Your task to perform on an android device: change your default location settings in chrome Image 0: 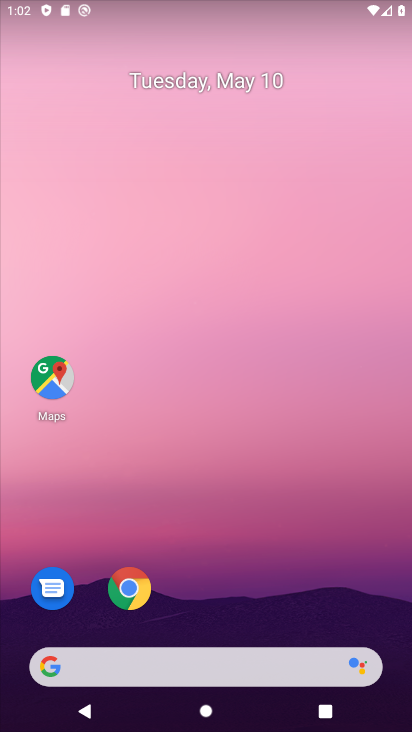
Step 0: drag from (231, 681) to (364, 134)
Your task to perform on an android device: change your default location settings in chrome Image 1: 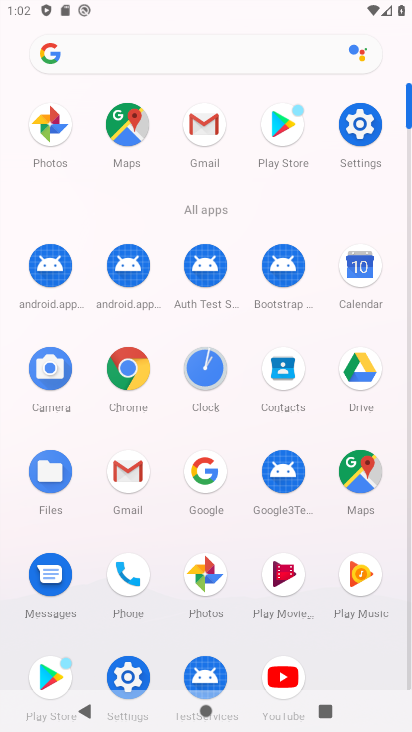
Step 1: click (136, 357)
Your task to perform on an android device: change your default location settings in chrome Image 2: 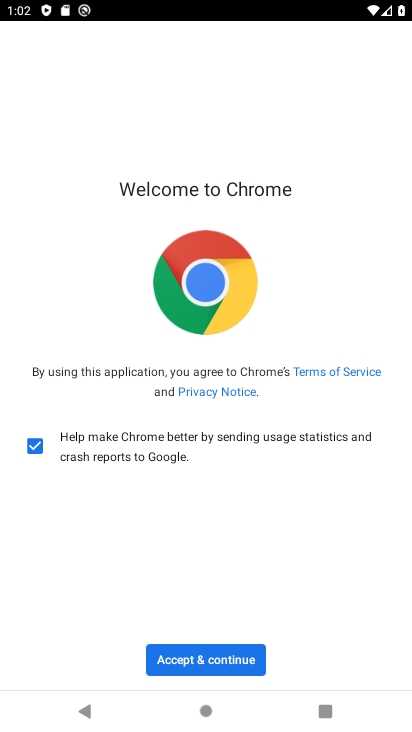
Step 2: click (223, 659)
Your task to perform on an android device: change your default location settings in chrome Image 3: 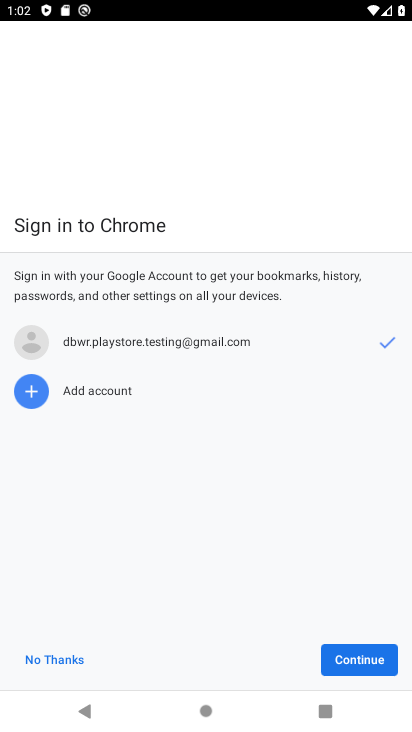
Step 3: click (338, 657)
Your task to perform on an android device: change your default location settings in chrome Image 4: 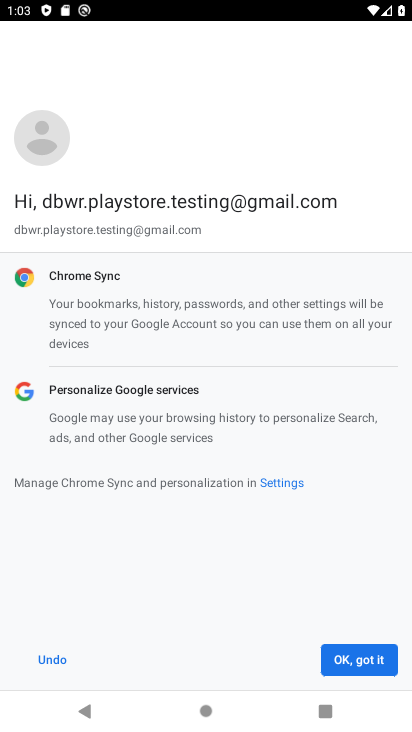
Step 4: click (346, 650)
Your task to perform on an android device: change your default location settings in chrome Image 5: 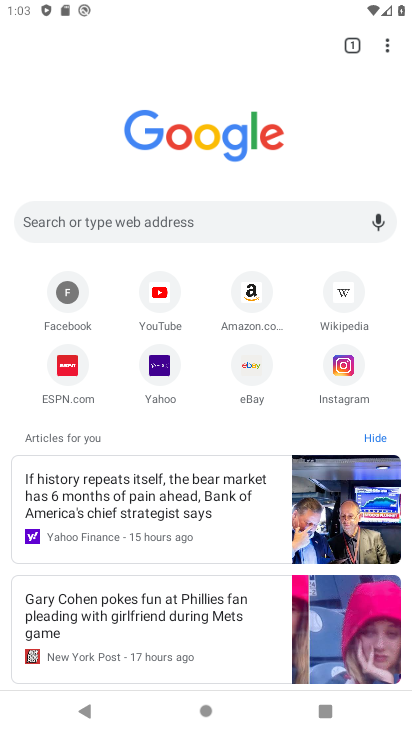
Step 5: click (379, 46)
Your task to perform on an android device: change your default location settings in chrome Image 6: 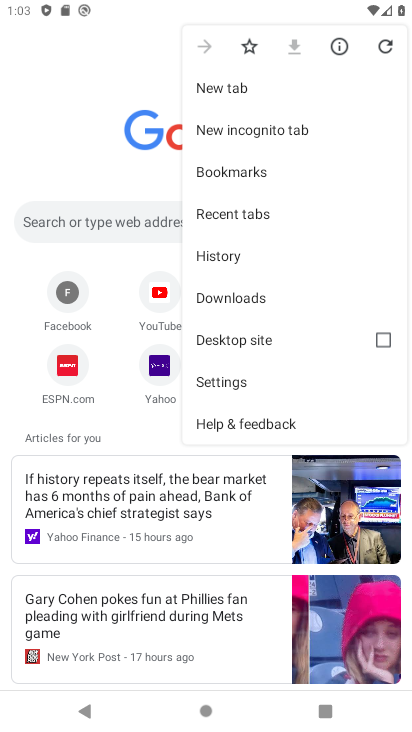
Step 6: click (228, 380)
Your task to perform on an android device: change your default location settings in chrome Image 7: 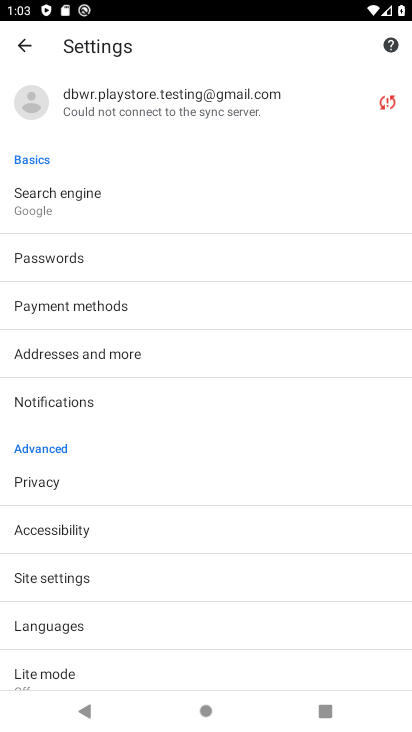
Step 7: drag from (56, 627) to (146, 502)
Your task to perform on an android device: change your default location settings in chrome Image 8: 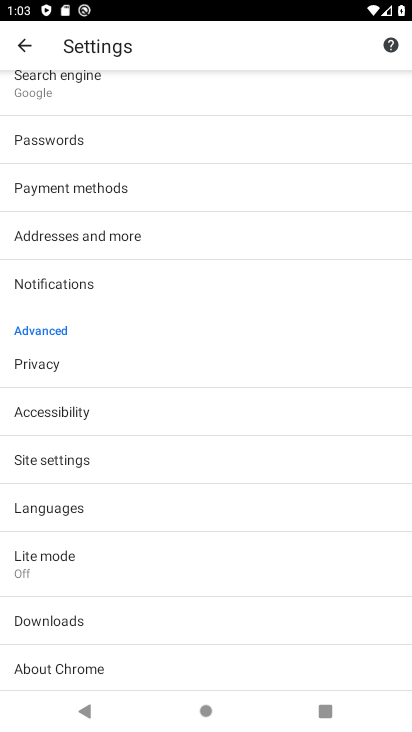
Step 8: click (82, 451)
Your task to perform on an android device: change your default location settings in chrome Image 9: 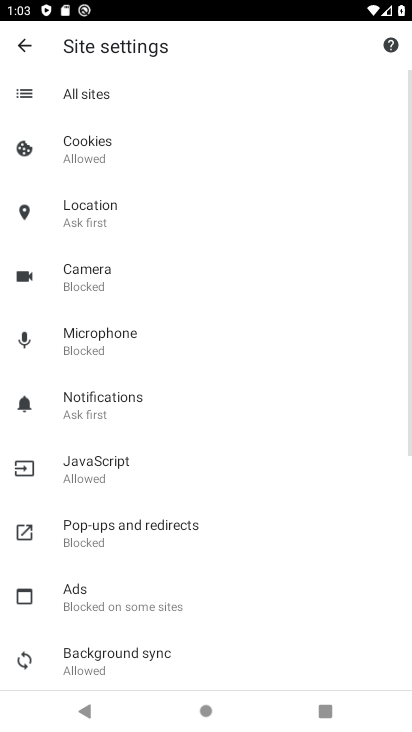
Step 9: click (126, 229)
Your task to perform on an android device: change your default location settings in chrome Image 10: 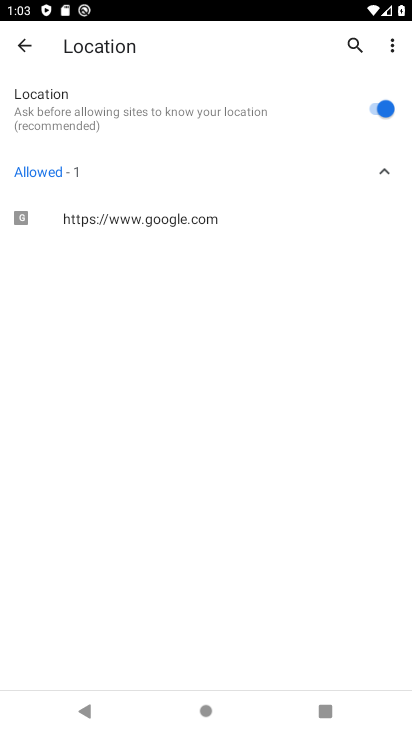
Step 10: task complete